Your task to perform on an android device: Open the web browser Image 0: 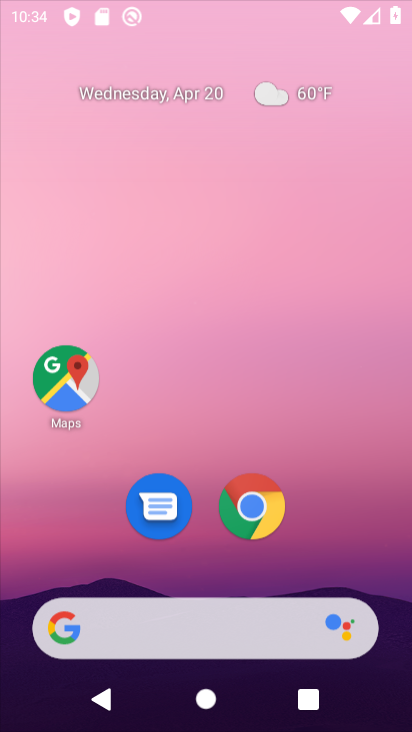
Step 0: click (311, 223)
Your task to perform on an android device: Open the web browser Image 1: 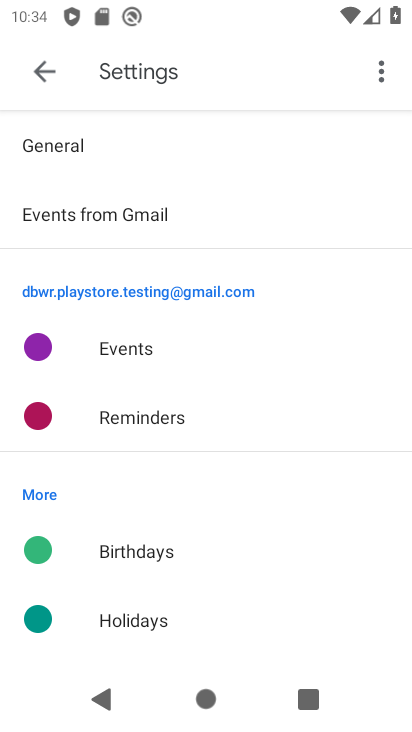
Step 1: press back button
Your task to perform on an android device: Open the web browser Image 2: 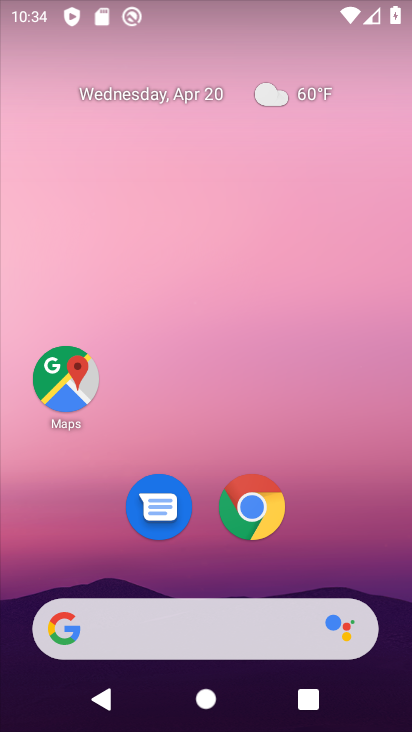
Step 2: drag from (304, 567) to (207, 161)
Your task to perform on an android device: Open the web browser Image 3: 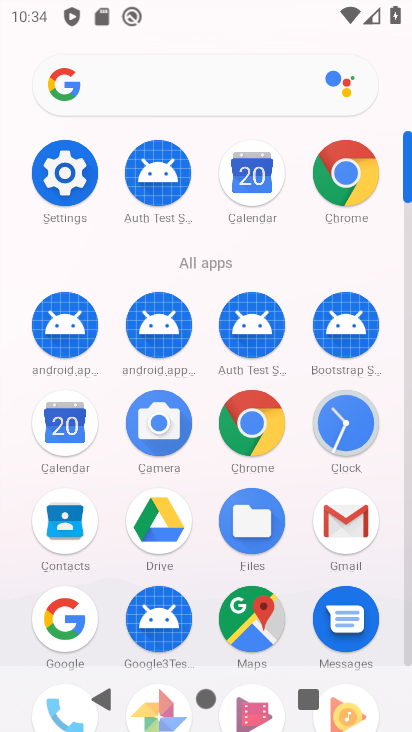
Step 3: click (71, 618)
Your task to perform on an android device: Open the web browser Image 4: 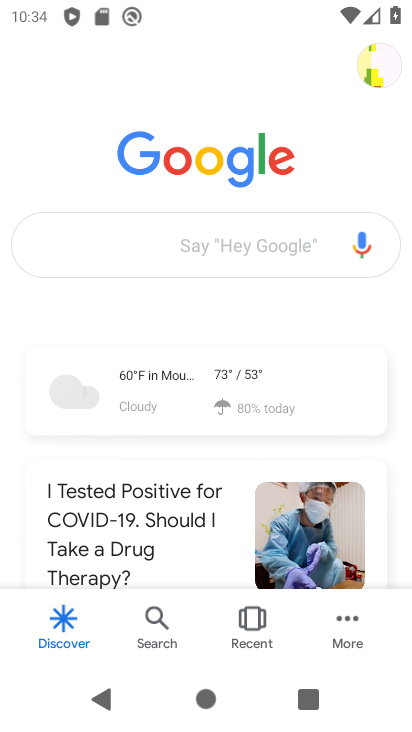
Step 4: click (134, 388)
Your task to perform on an android device: Open the web browser Image 5: 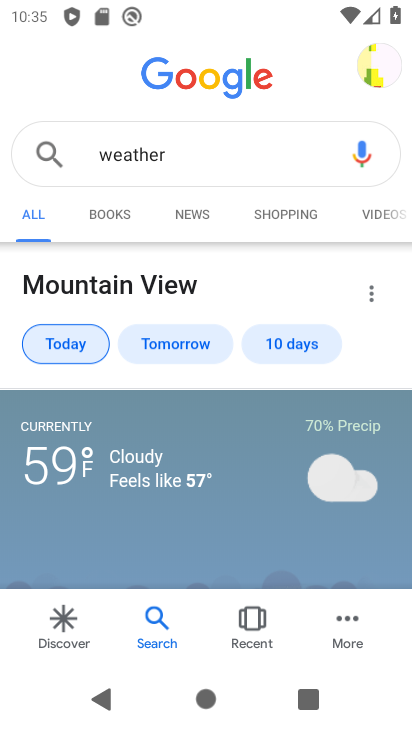
Step 5: press home button
Your task to perform on an android device: Open the web browser Image 6: 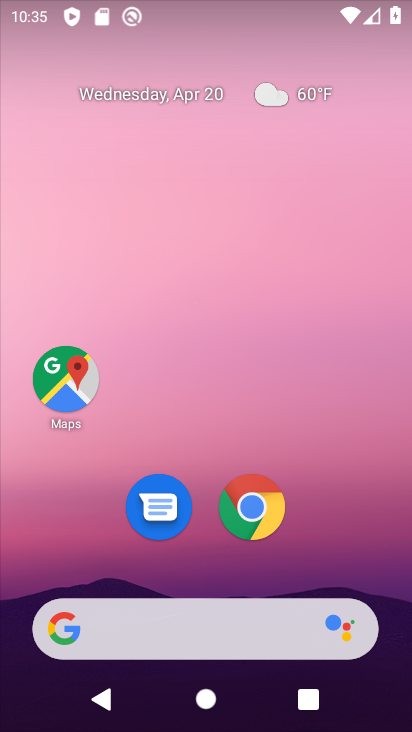
Step 6: click (290, 516)
Your task to perform on an android device: Open the web browser Image 7: 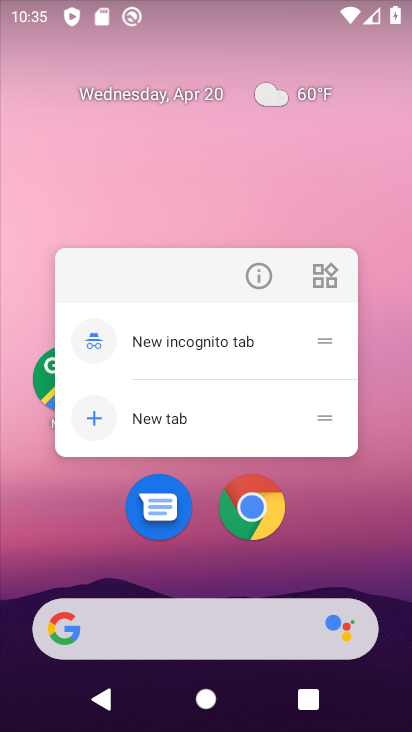
Step 7: click (261, 523)
Your task to perform on an android device: Open the web browser Image 8: 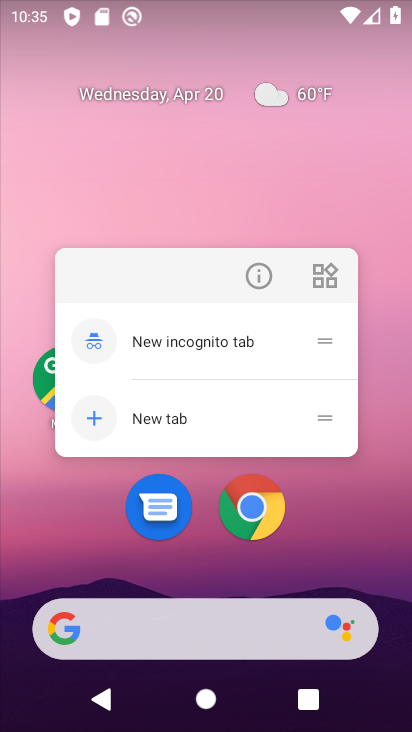
Step 8: click (258, 506)
Your task to perform on an android device: Open the web browser Image 9: 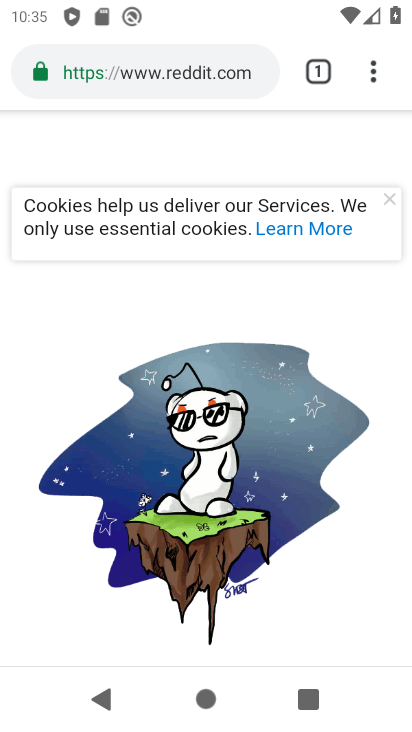
Step 9: task complete